Your task to perform on an android device: Go to calendar. Show me events next week Image 0: 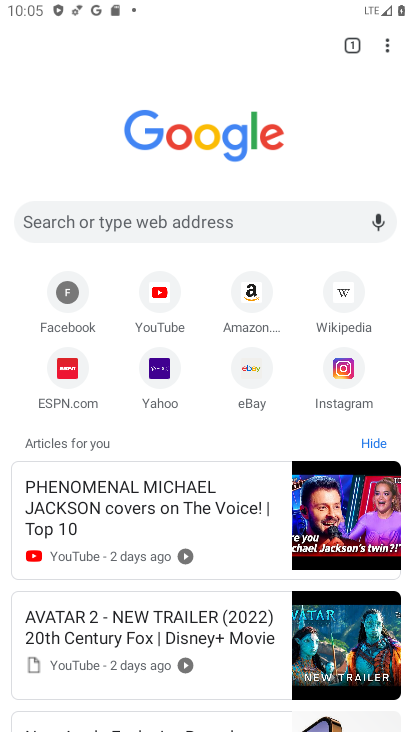
Step 0: press home button
Your task to perform on an android device: Go to calendar. Show me events next week Image 1: 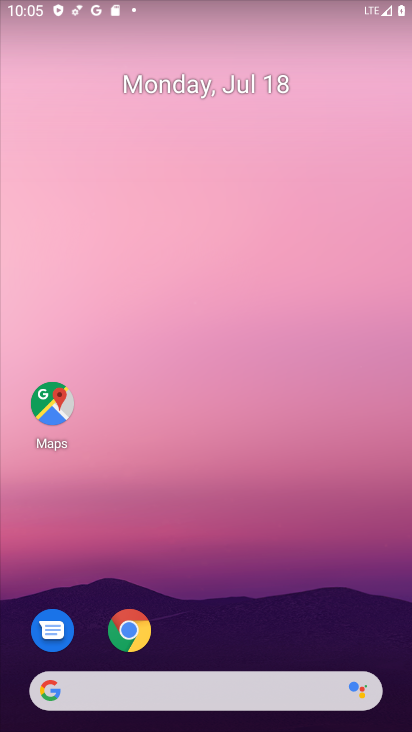
Step 1: drag from (234, 628) to (171, 246)
Your task to perform on an android device: Go to calendar. Show me events next week Image 2: 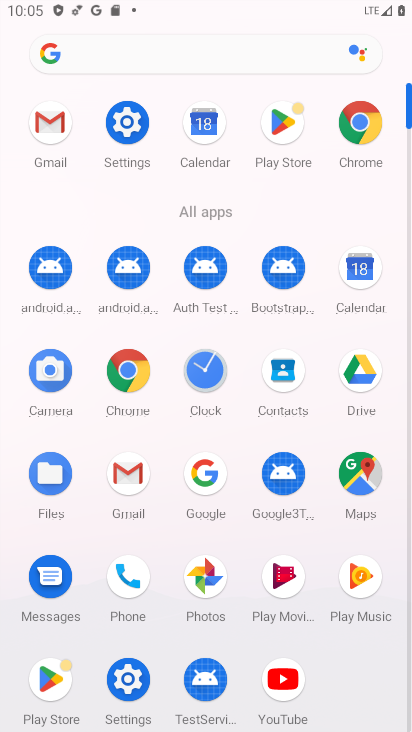
Step 2: click (365, 276)
Your task to perform on an android device: Go to calendar. Show me events next week Image 3: 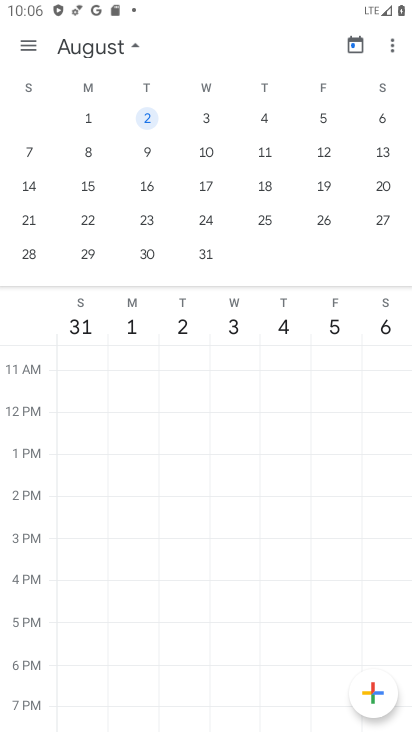
Step 3: click (28, 53)
Your task to perform on an android device: Go to calendar. Show me events next week Image 4: 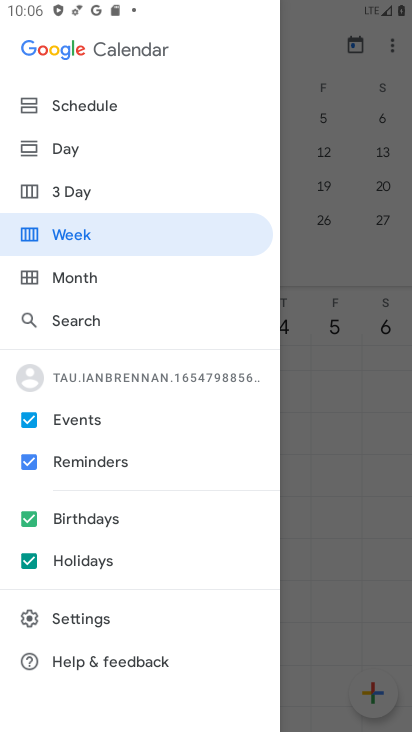
Step 4: click (24, 556)
Your task to perform on an android device: Go to calendar. Show me events next week Image 5: 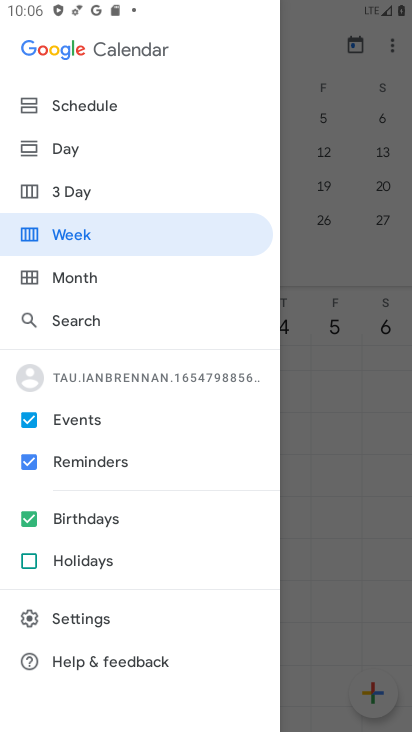
Step 5: click (29, 521)
Your task to perform on an android device: Go to calendar. Show me events next week Image 6: 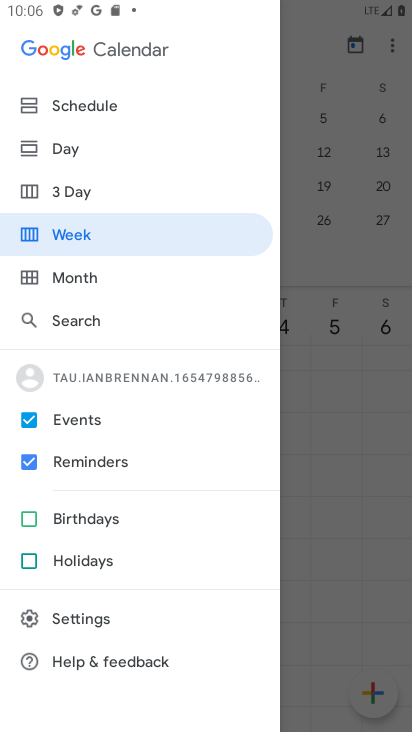
Step 6: click (26, 467)
Your task to perform on an android device: Go to calendar. Show me events next week Image 7: 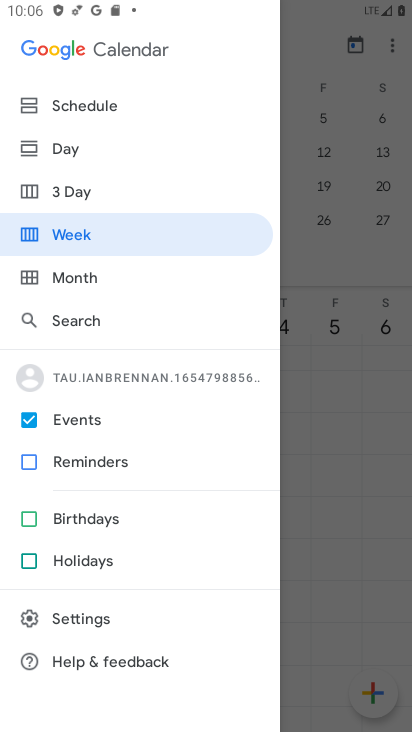
Step 7: click (99, 236)
Your task to perform on an android device: Go to calendar. Show me events next week Image 8: 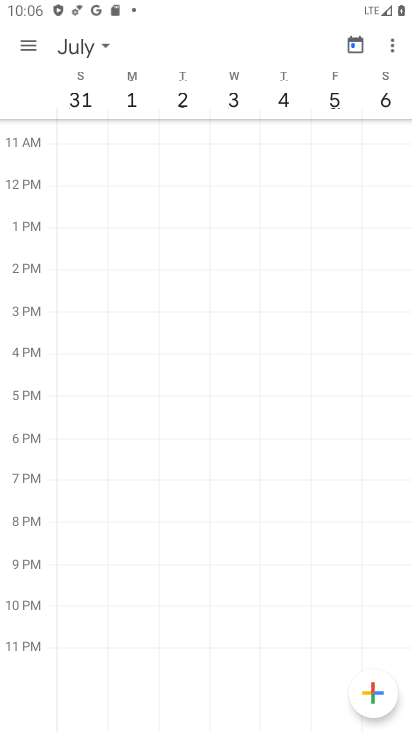
Step 8: drag from (103, 100) to (352, 157)
Your task to perform on an android device: Go to calendar. Show me events next week Image 9: 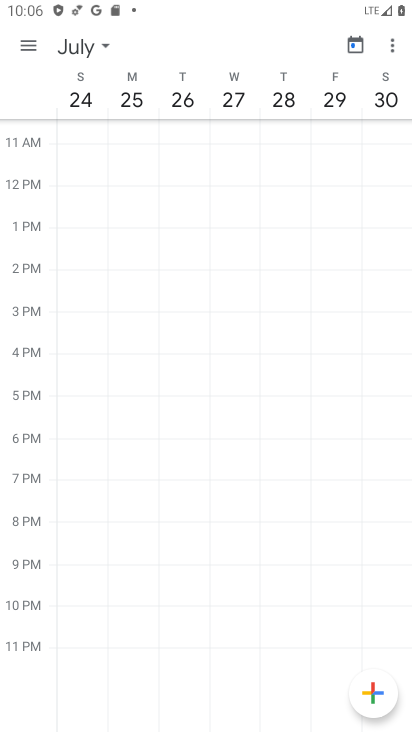
Step 9: click (78, 47)
Your task to perform on an android device: Go to calendar. Show me events next week Image 10: 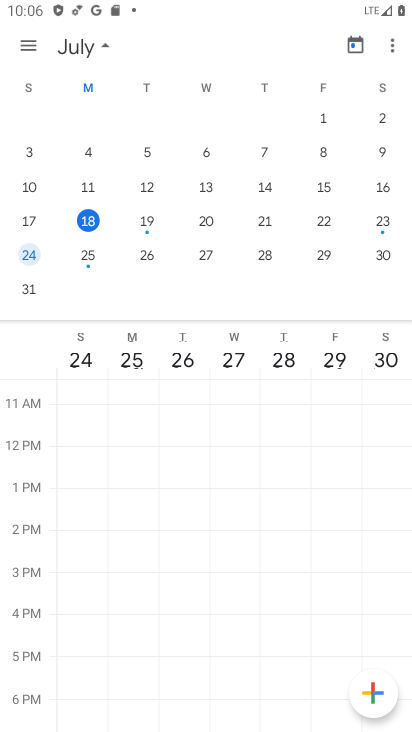
Step 10: click (91, 265)
Your task to perform on an android device: Go to calendar. Show me events next week Image 11: 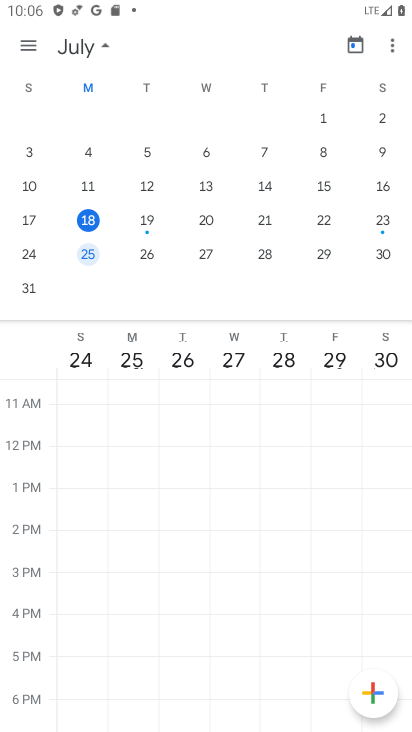
Step 11: task complete